Your task to perform on an android device: Open sound settings Image 0: 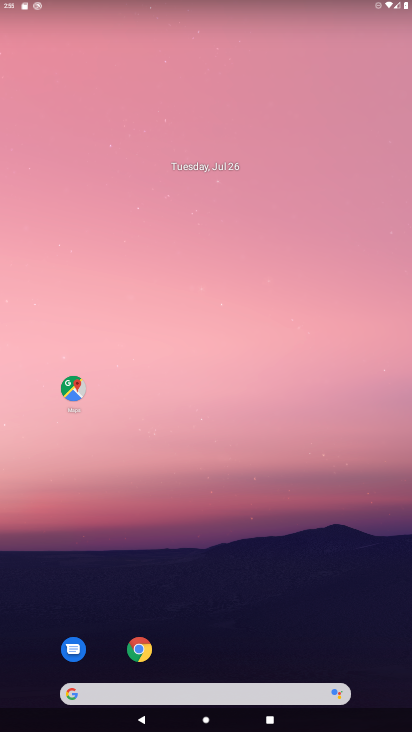
Step 0: drag from (208, 194) to (225, 50)
Your task to perform on an android device: Open sound settings Image 1: 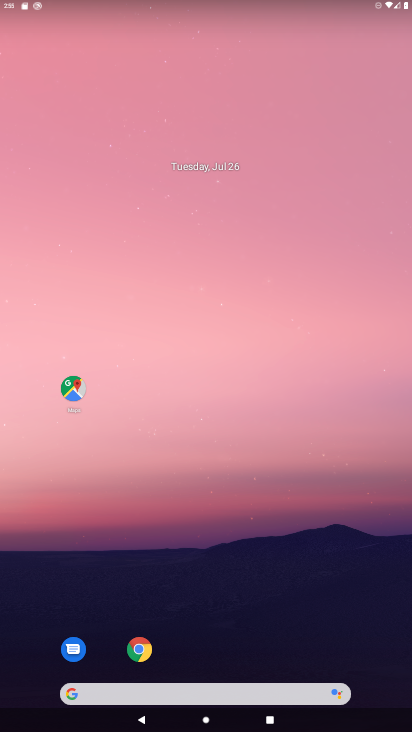
Step 1: click (340, 25)
Your task to perform on an android device: Open sound settings Image 2: 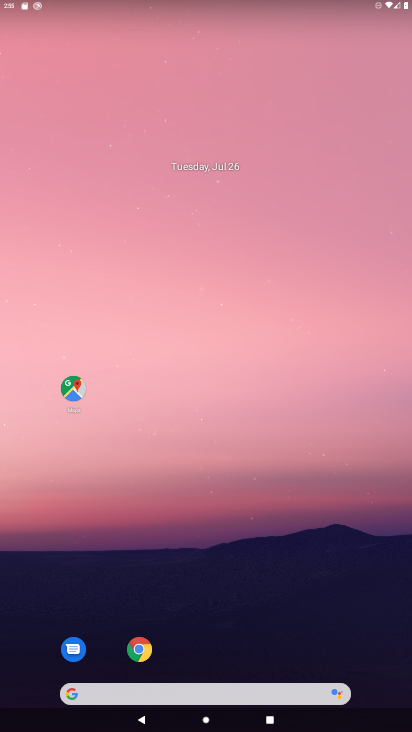
Step 2: drag from (224, 647) to (218, 166)
Your task to perform on an android device: Open sound settings Image 3: 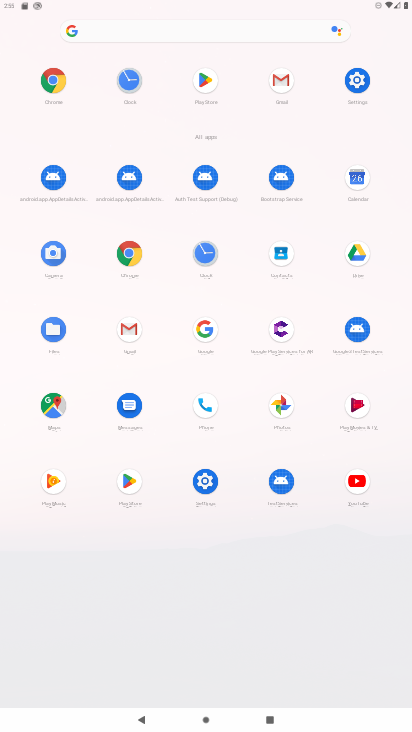
Step 3: click (366, 100)
Your task to perform on an android device: Open sound settings Image 4: 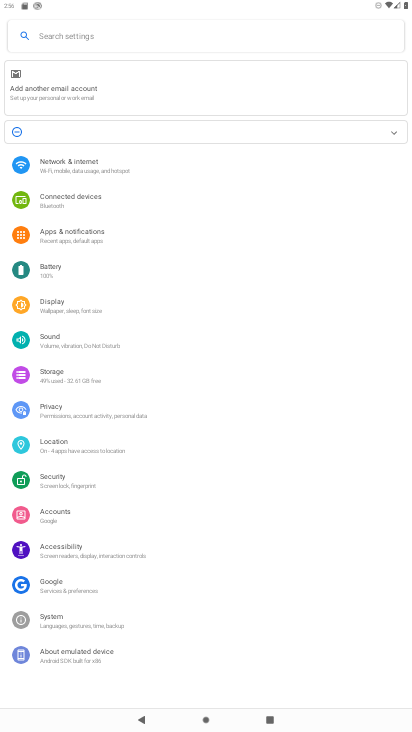
Step 4: click (64, 342)
Your task to perform on an android device: Open sound settings Image 5: 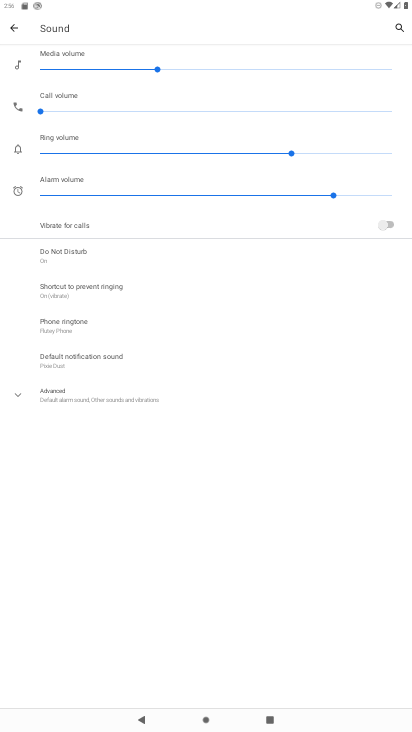
Step 5: task complete